Your task to perform on an android device: turn on airplane mode Image 0: 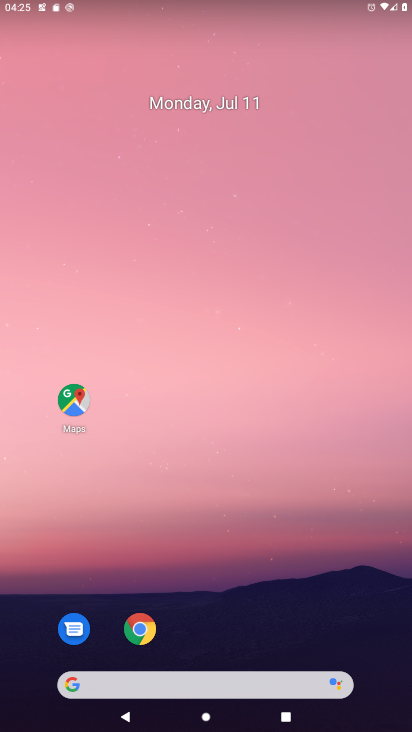
Step 0: drag from (364, 5) to (197, 620)
Your task to perform on an android device: turn on airplane mode Image 1: 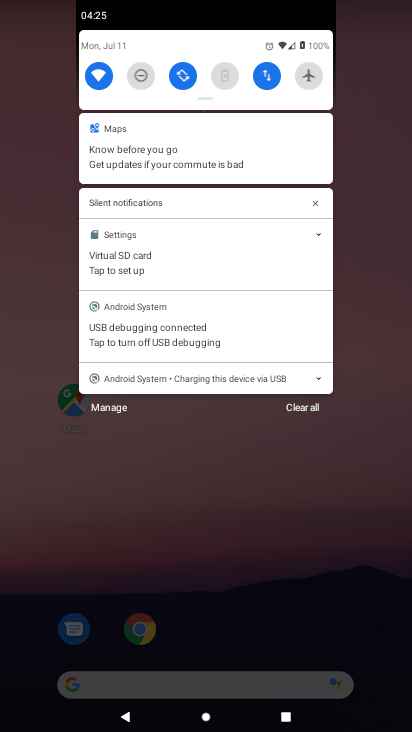
Step 1: click (308, 74)
Your task to perform on an android device: turn on airplane mode Image 2: 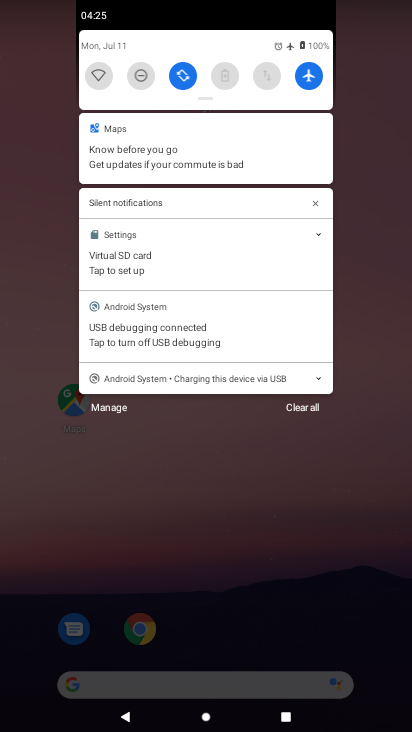
Step 2: task complete